Your task to perform on an android device: Search for vegetarian restaurants on Maps Image 0: 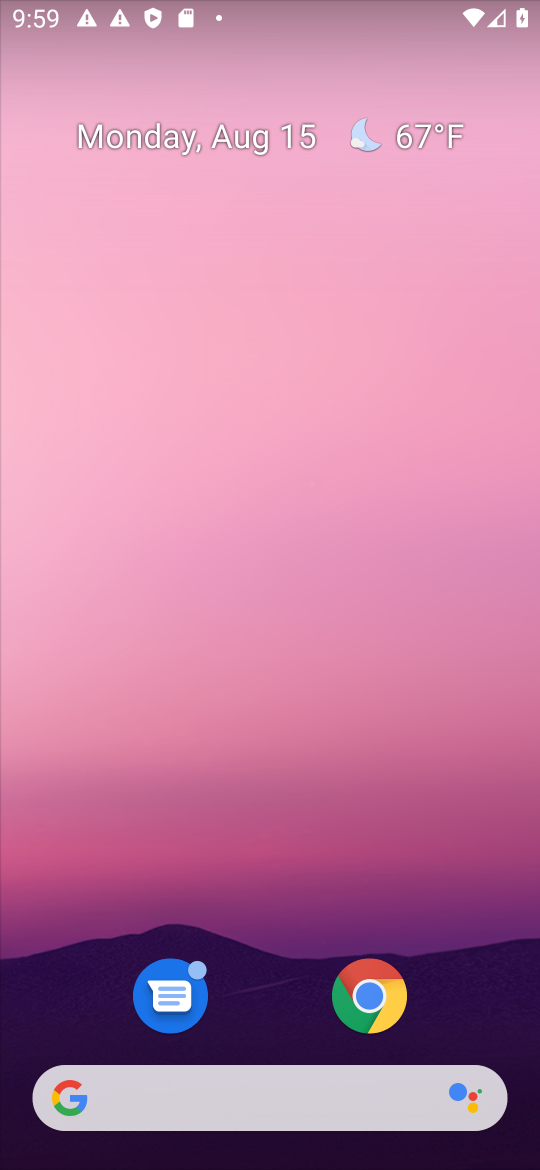
Step 0: drag from (253, 253) to (253, 125)
Your task to perform on an android device: Search for vegetarian restaurants on Maps Image 1: 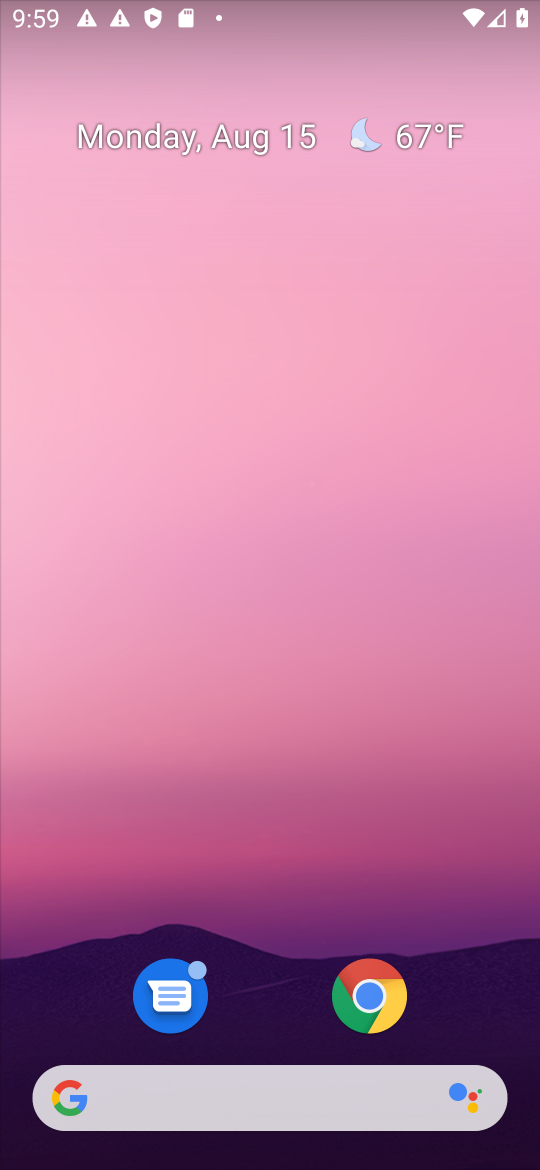
Step 1: drag from (297, 672) to (297, 261)
Your task to perform on an android device: Search for vegetarian restaurants on Maps Image 2: 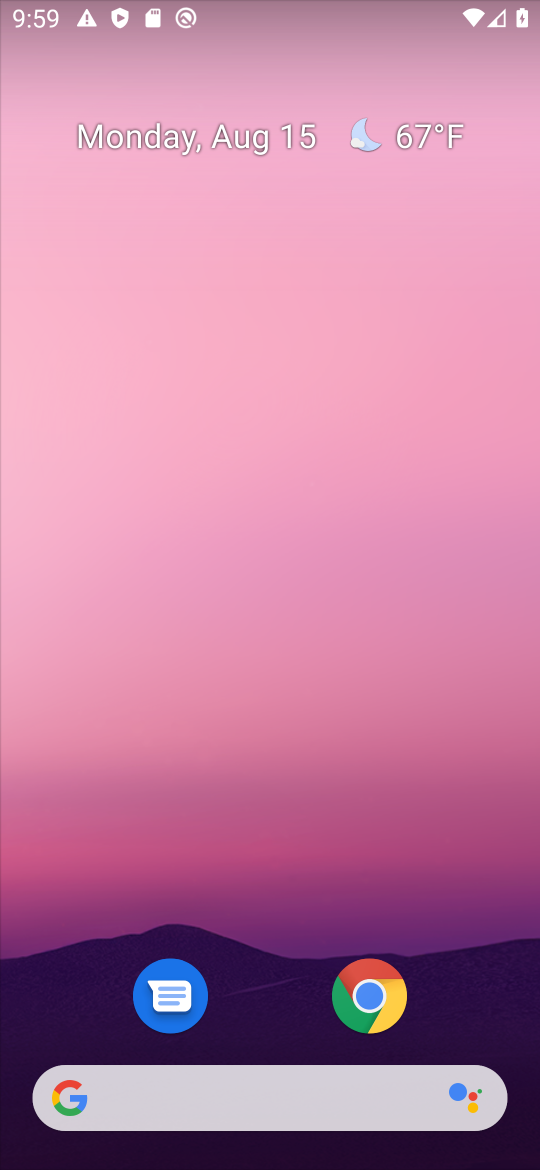
Step 2: drag from (256, 1031) to (323, 135)
Your task to perform on an android device: Search for vegetarian restaurants on Maps Image 3: 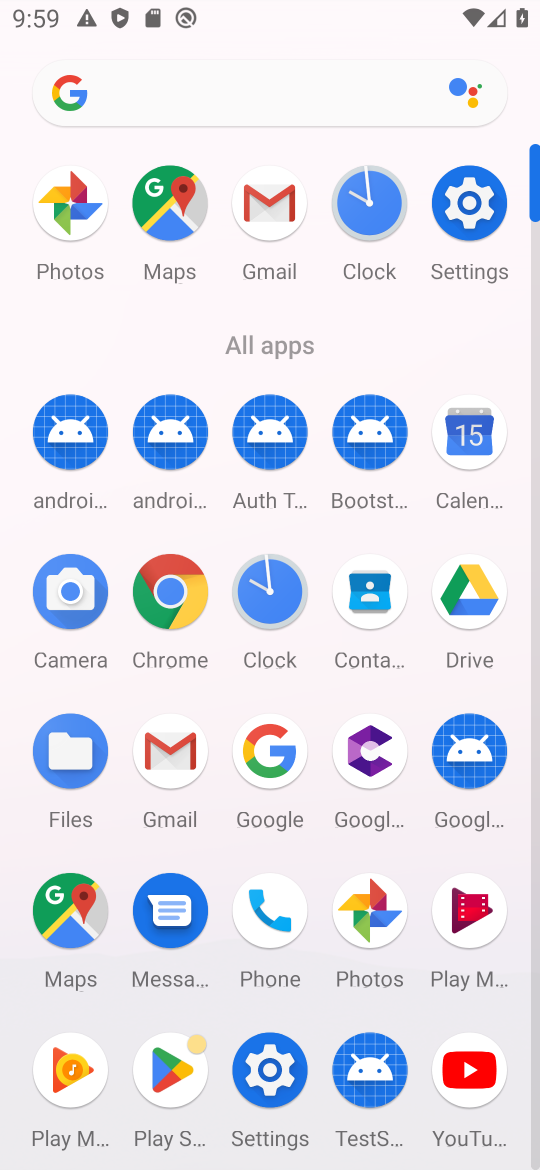
Step 3: click (64, 903)
Your task to perform on an android device: Search for vegetarian restaurants on Maps Image 4: 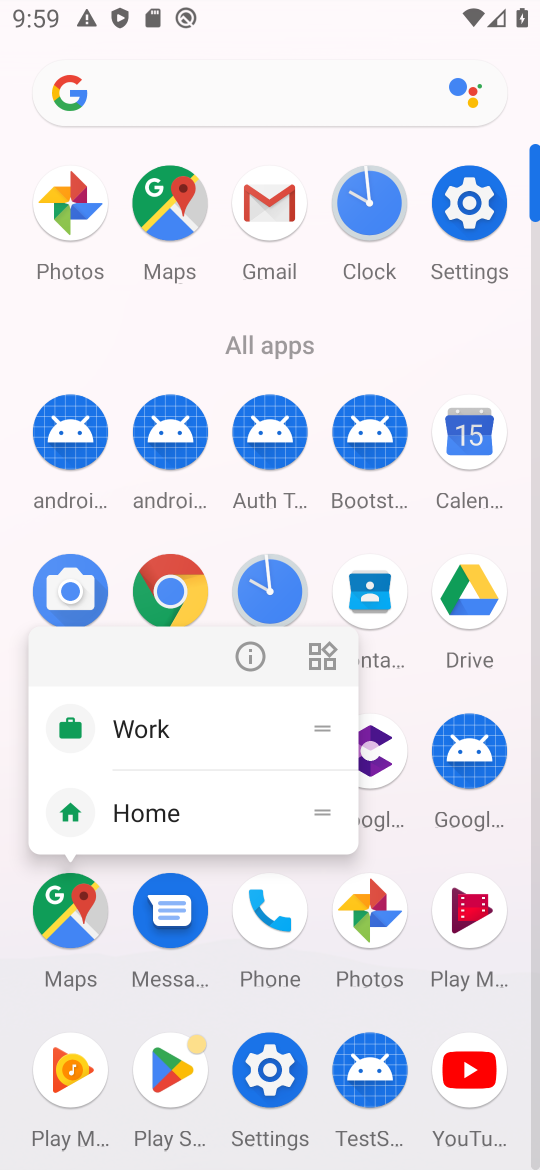
Step 4: click (48, 952)
Your task to perform on an android device: Search for vegetarian restaurants on Maps Image 5: 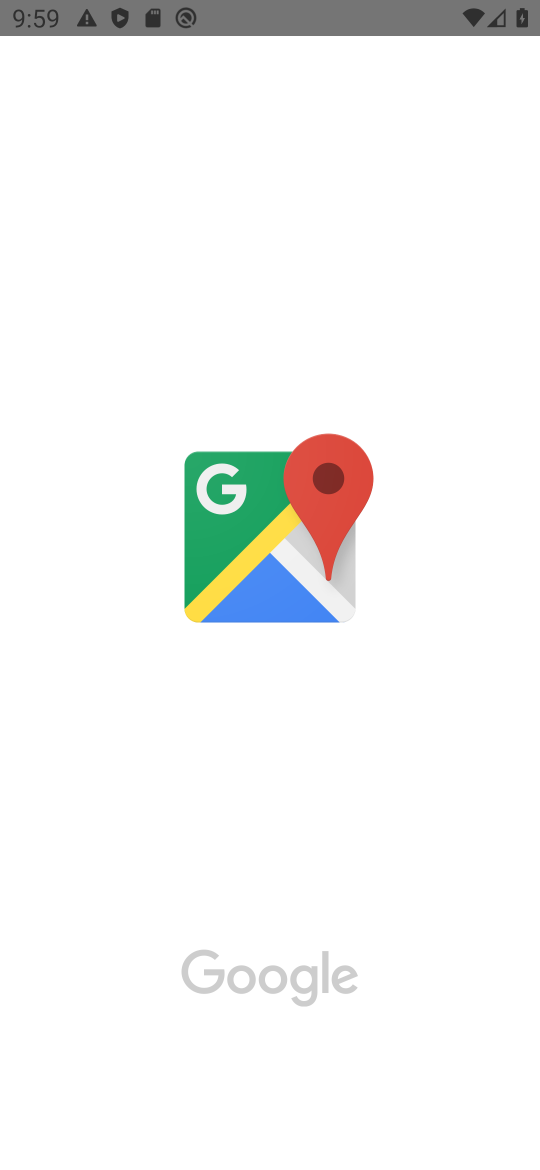
Step 5: click (54, 937)
Your task to perform on an android device: Search for vegetarian restaurants on Maps Image 6: 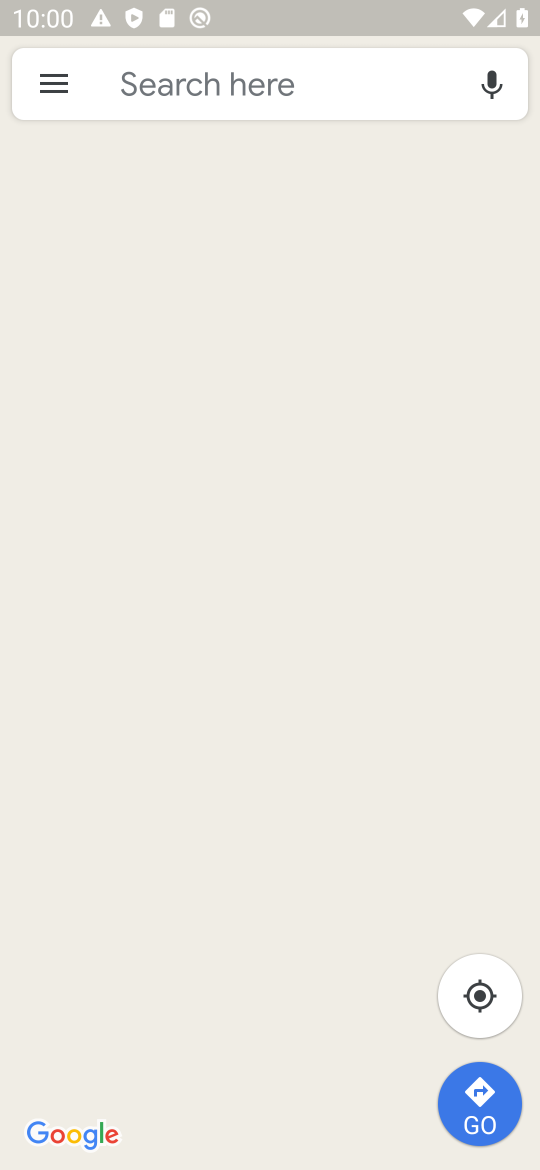
Step 6: click (202, 83)
Your task to perform on an android device: Search for vegetarian restaurants on Maps Image 7: 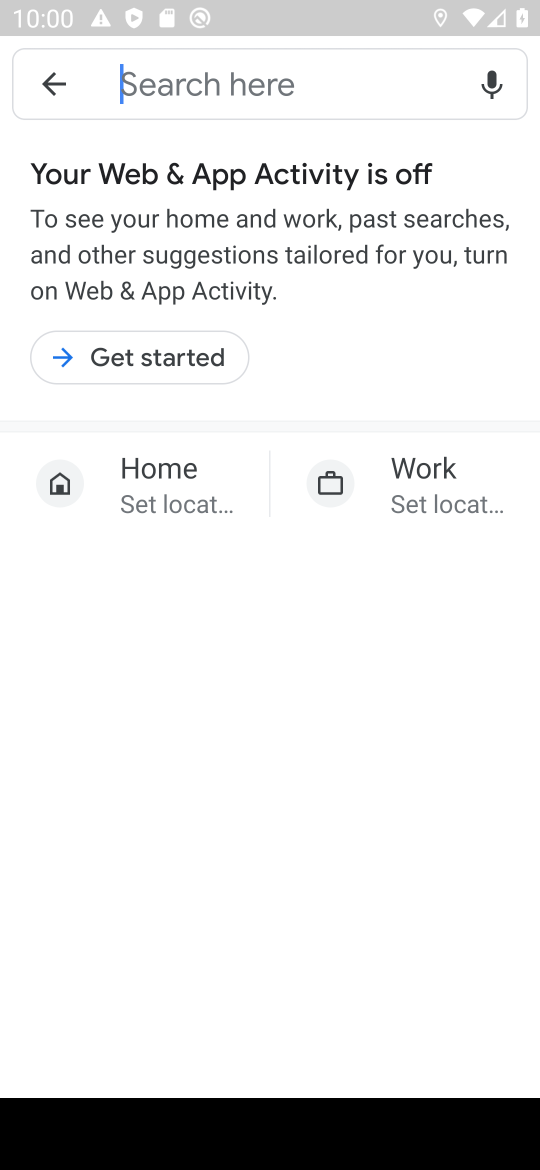
Step 7: click (237, 86)
Your task to perform on an android device: Search for vegetarian restaurants on Maps Image 8: 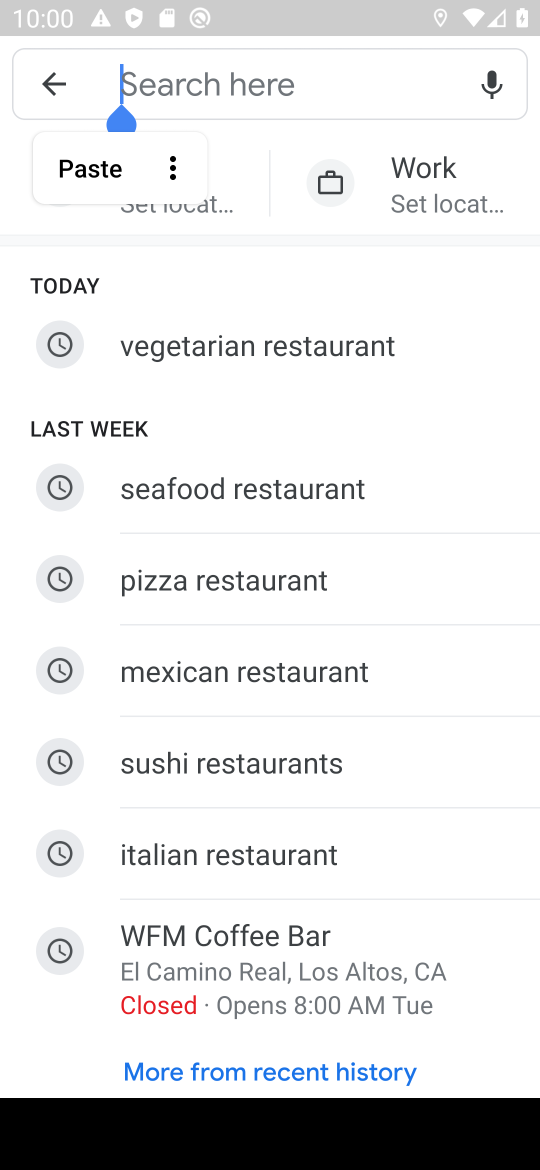
Step 8: click (209, 345)
Your task to perform on an android device: Search for vegetarian restaurants on Maps Image 9: 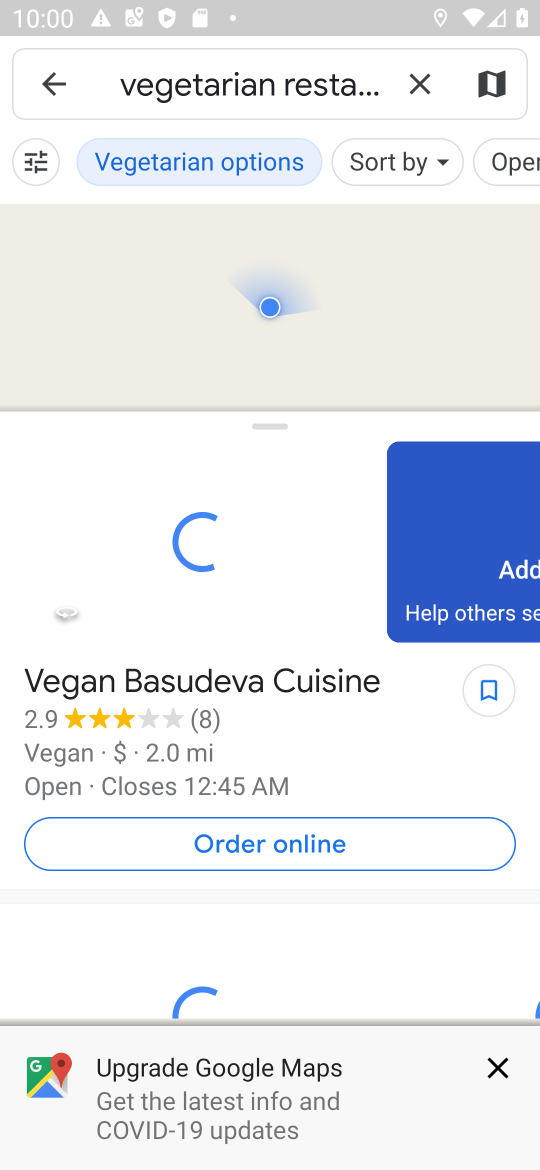
Step 9: click (500, 1068)
Your task to perform on an android device: Search for vegetarian restaurants on Maps Image 10: 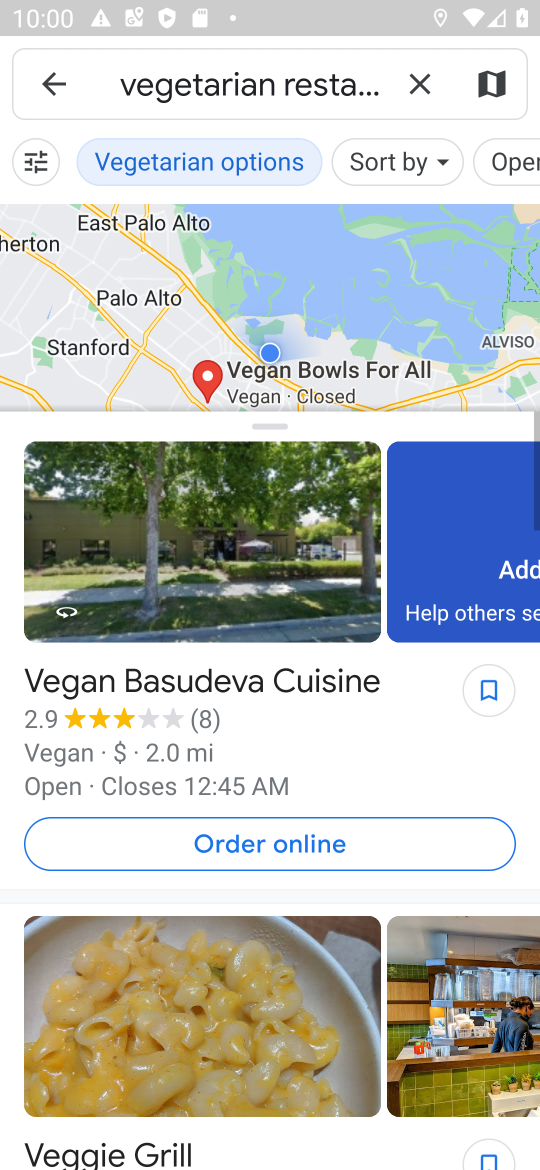
Step 10: task complete